Your task to perform on an android device: star an email in the gmail app Image 0: 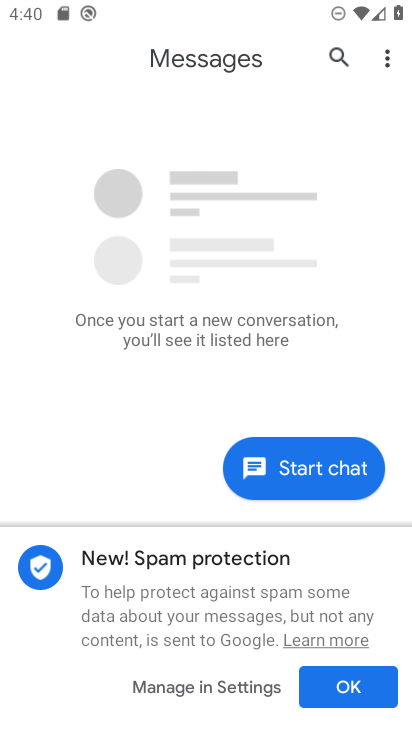
Step 0: press home button
Your task to perform on an android device: star an email in the gmail app Image 1: 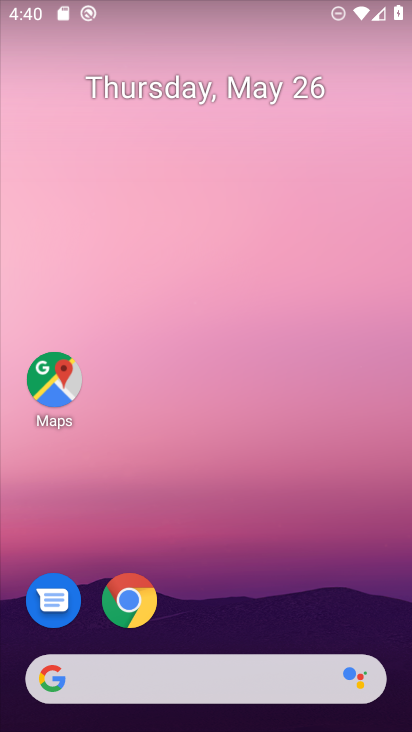
Step 1: drag from (201, 624) to (246, 179)
Your task to perform on an android device: star an email in the gmail app Image 2: 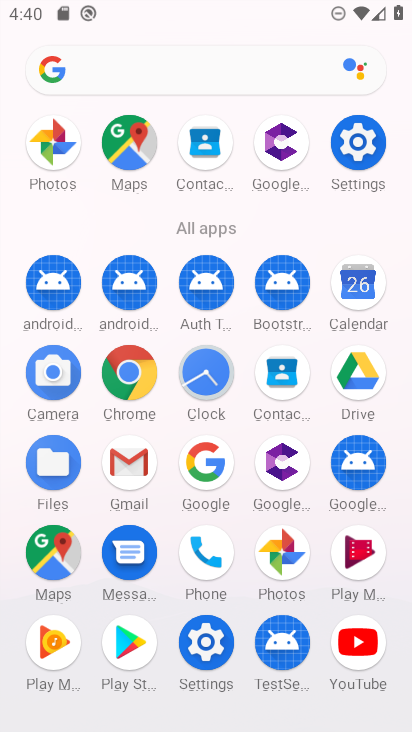
Step 2: click (129, 473)
Your task to perform on an android device: star an email in the gmail app Image 3: 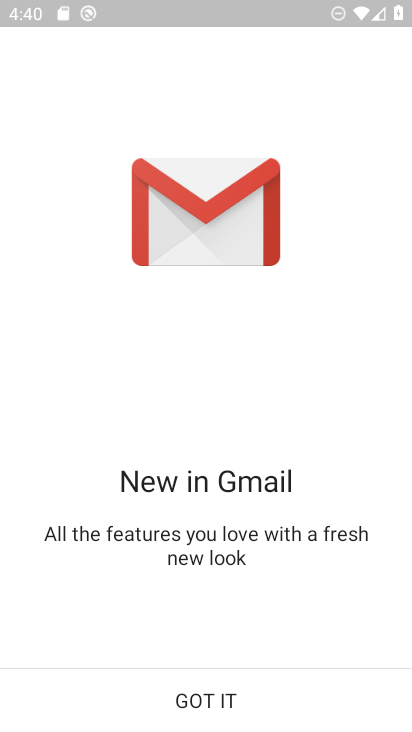
Step 3: click (191, 703)
Your task to perform on an android device: star an email in the gmail app Image 4: 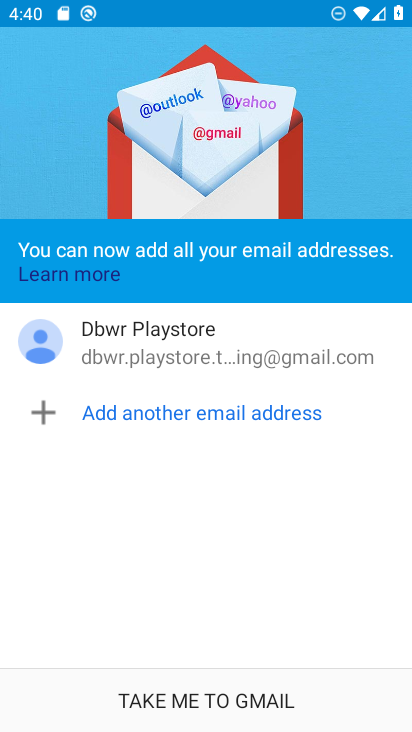
Step 4: click (191, 703)
Your task to perform on an android device: star an email in the gmail app Image 5: 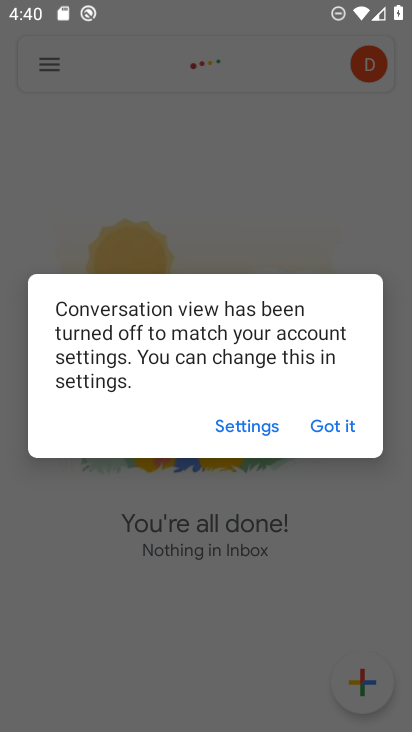
Step 5: click (327, 414)
Your task to perform on an android device: star an email in the gmail app Image 6: 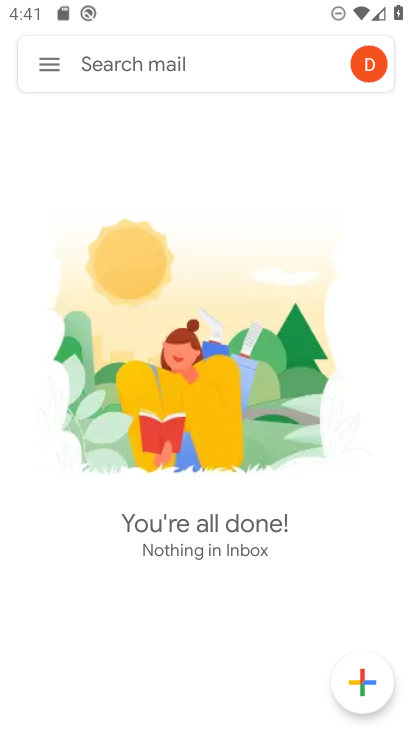
Step 6: click (53, 69)
Your task to perform on an android device: star an email in the gmail app Image 7: 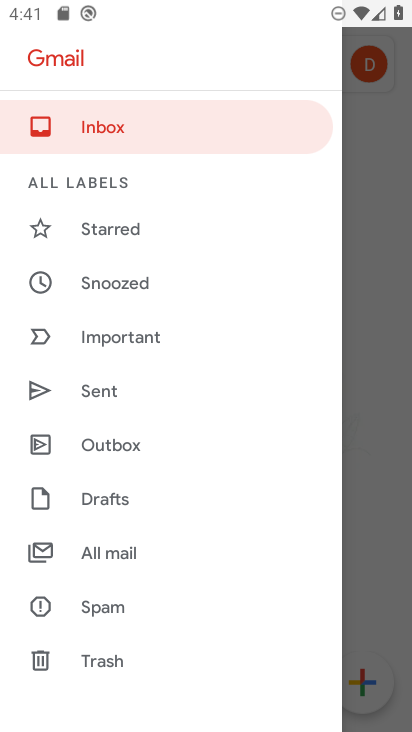
Step 7: click (106, 559)
Your task to perform on an android device: star an email in the gmail app Image 8: 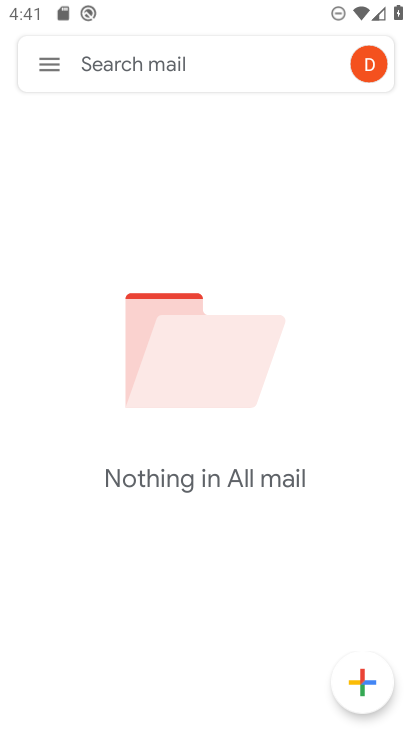
Step 8: task complete